Your task to perform on an android device: Open maps Image 0: 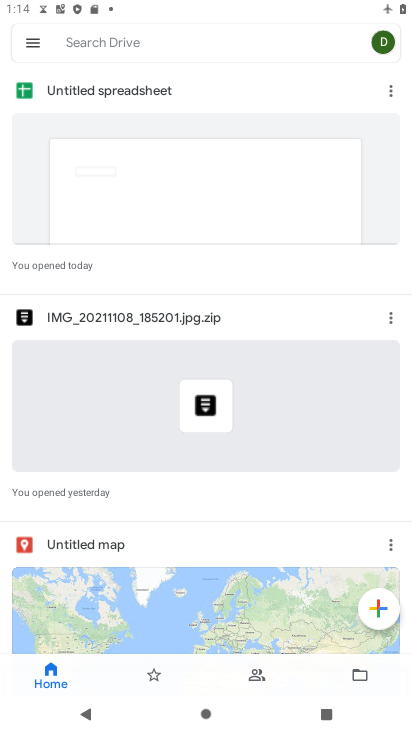
Step 0: press back button
Your task to perform on an android device: Open maps Image 1: 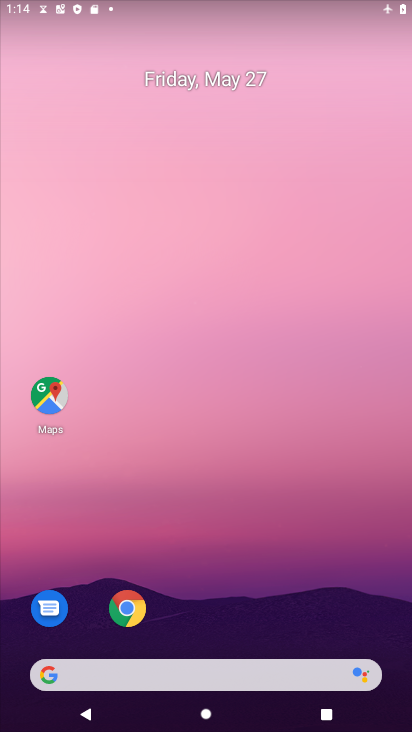
Step 1: click (32, 393)
Your task to perform on an android device: Open maps Image 2: 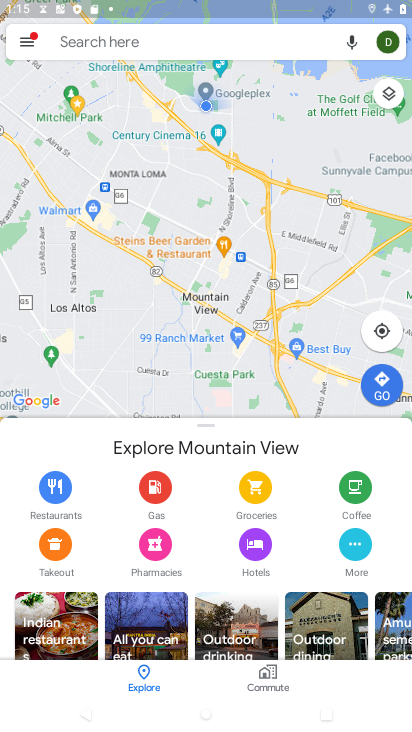
Step 2: task complete